Your task to perform on an android device: Open CNN.com Image 0: 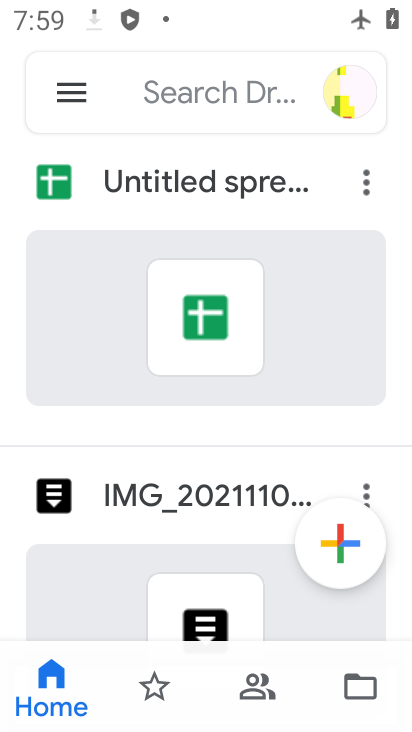
Step 0: press home button
Your task to perform on an android device: Open CNN.com Image 1: 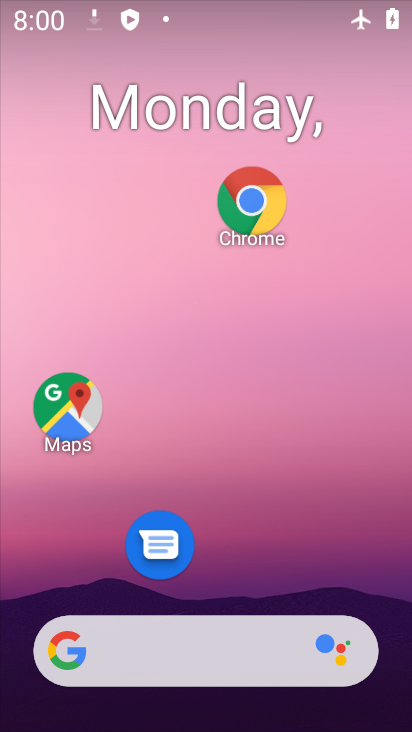
Step 1: click (183, 646)
Your task to perform on an android device: Open CNN.com Image 2: 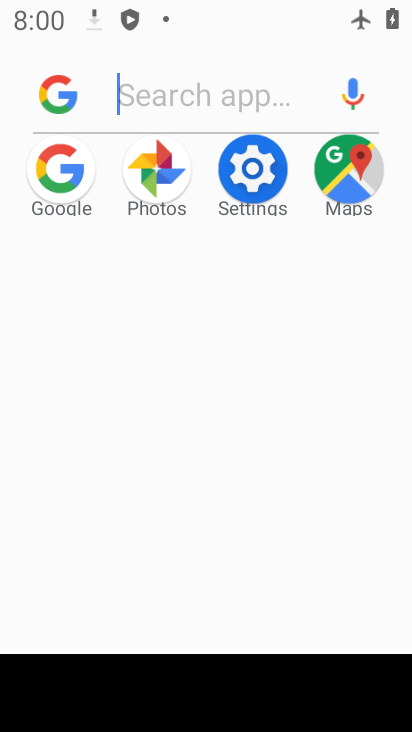
Step 2: type "CNN.com"
Your task to perform on an android device: Open CNN.com Image 3: 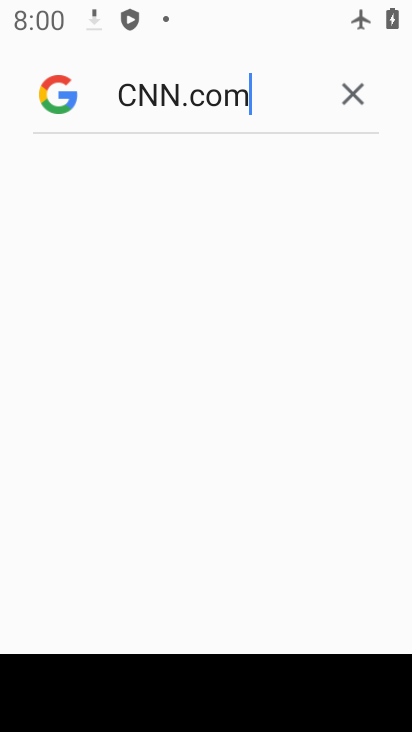
Step 3: task complete